Your task to perform on an android device: turn on the 12-hour format for clock Image 0: 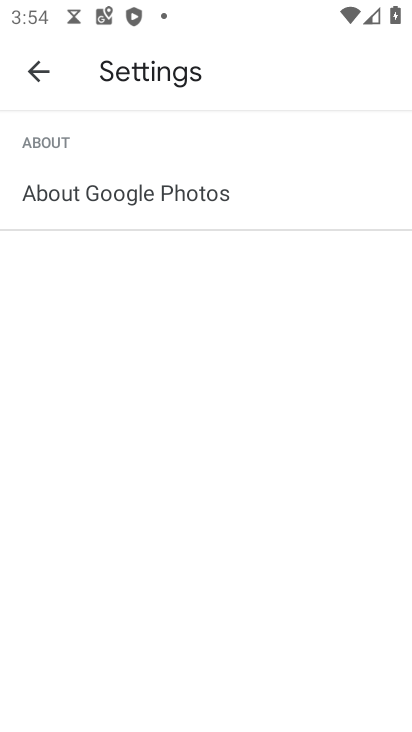
Step 0: press home button
Your task to perform on an android device: turn on the 12-hour format for clock Image 1: 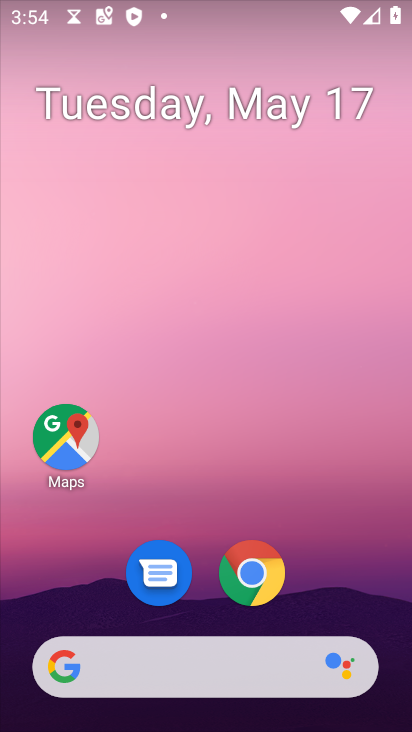
Step 1: drag from (326, 596) to (229, 52)
Your task to perform on an android device: turn on the 12-hour format for clock Image 2: 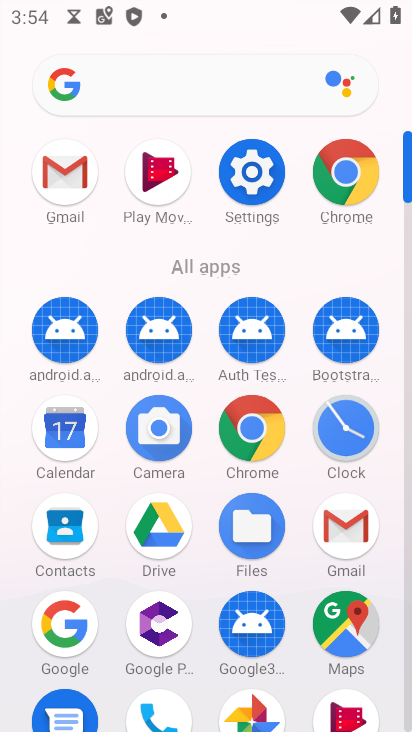
Step 2: click (349, 450)
Your task to perform on an android device: turn on the 12-hour format for clock Image 3: 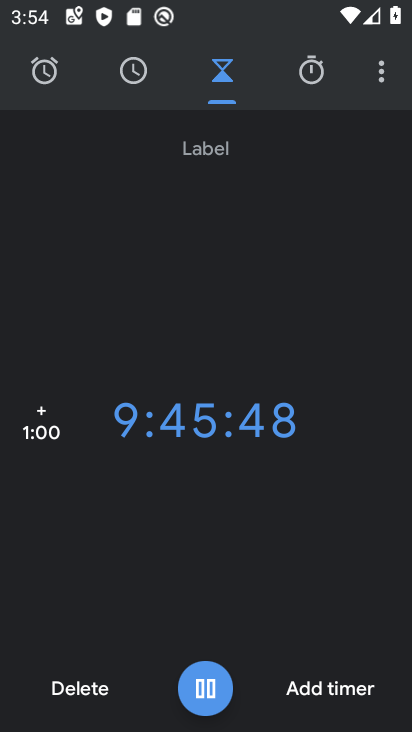
Step 3: click (376, 80)
Your task to perform on an android device: turn on the 12-hour format for clock Image 4: 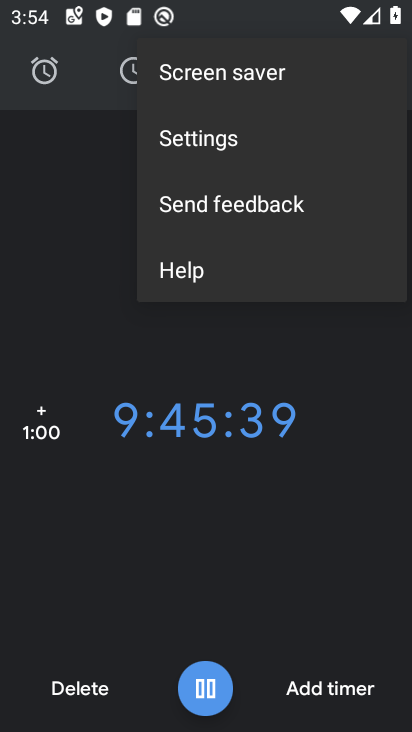
Step 4: click (277, 157)
Your task to perform on an android device: turn on the 12-hour format for clock Image 5: 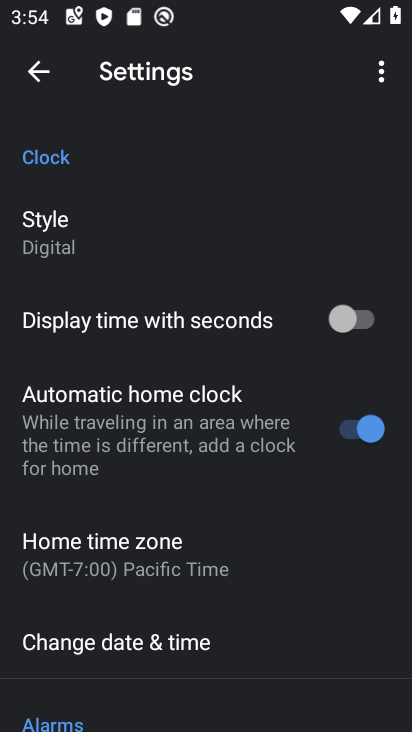
Step 5: click (203, 633)
Your task to perform on an android device: turn on the 12-hour format for clock Image 6: 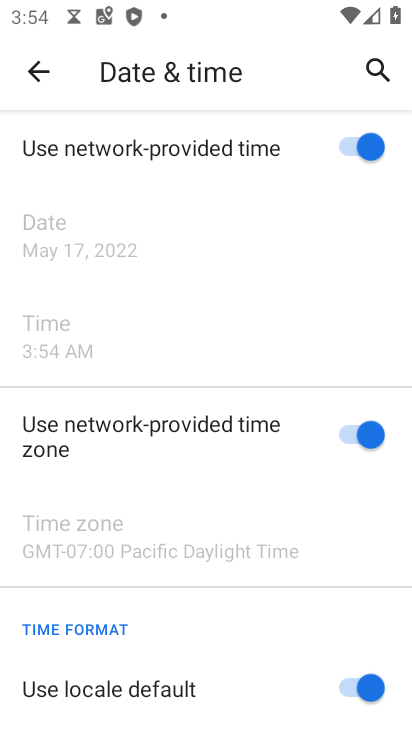
Step 6: task complete